Your task to perform on an android device: Do I have any events tomorrow? Image 0: 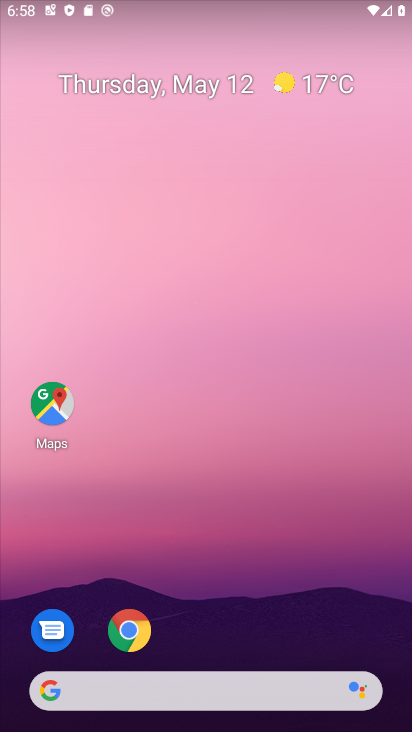
Step 0: drag from (323, 479) to (313, 39)
Your task to perform on an android device: Do I have any events tomorrow? Image 1: 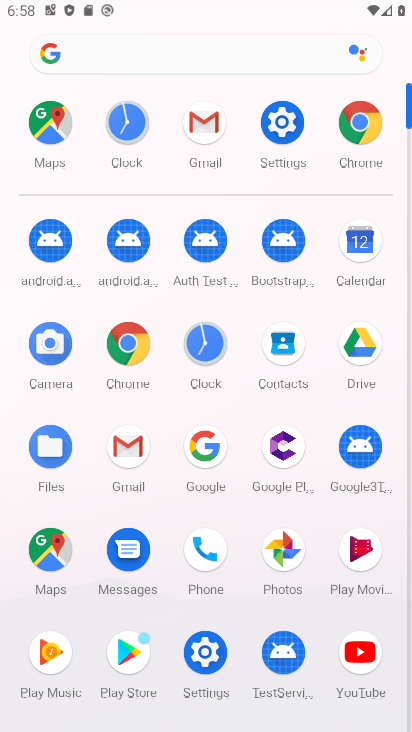
Step 1: click (397, 231)
Your task to perform on an android device: Do I have any events tomorrow? Image 2: 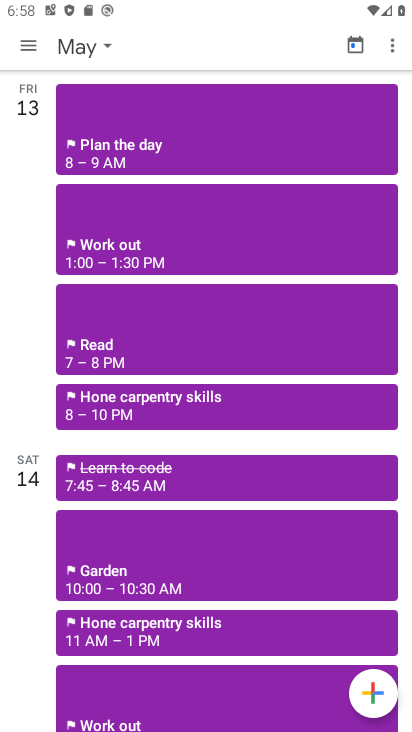
Step 2: drag from (187, 555) to (220, 289)
Your task to perform on an android device: Do I have any events tomorrow? Image 3: 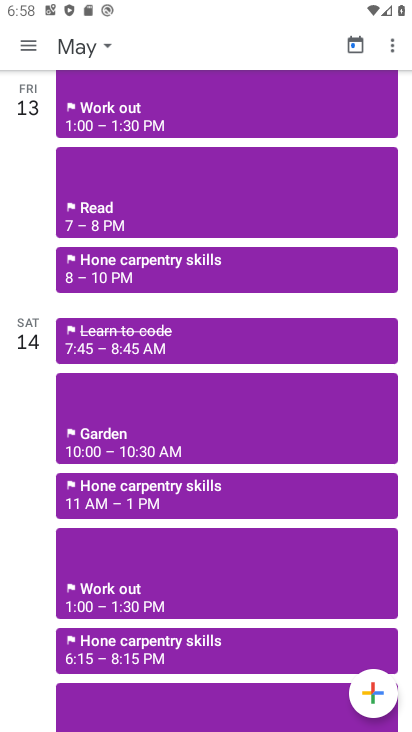
Step 3: click (134, 330)
Your task to perform on an android device: Do I have any events tomorrow? Image 4: 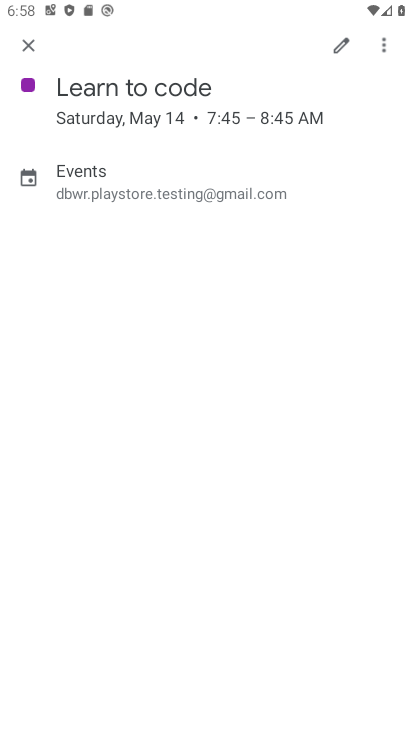
Step 4: task complete